Your task to perform on an android device: What's the weather going to be tomorrow? Image 0: 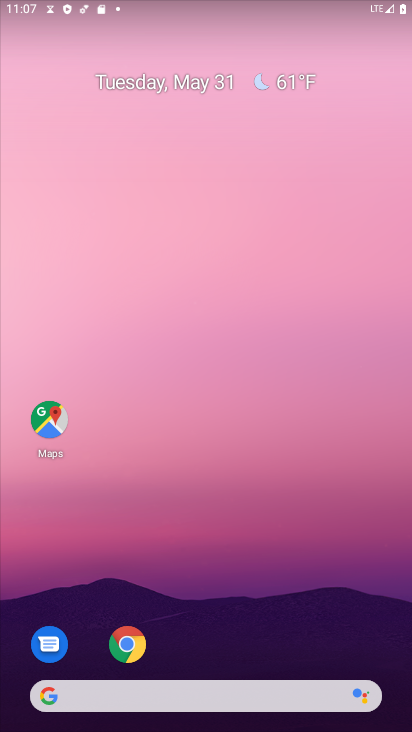
Step 0: click (295, 82)
Your task to perform on an android device: What's the weather going to be tomorrow? Image 1: 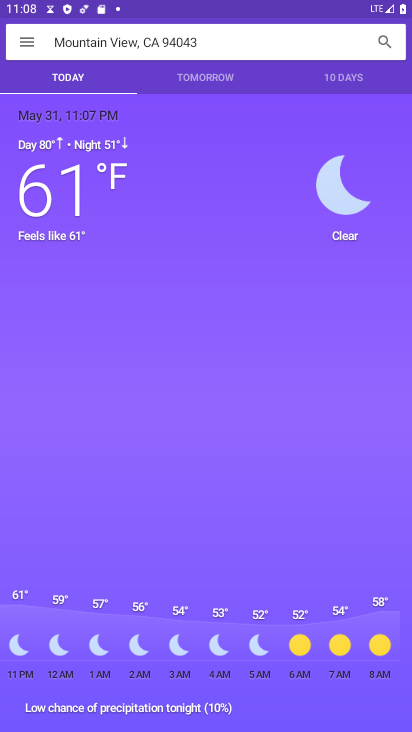
Step 1: click (207, 73)
Your task to perform on an android device: What's the weather going to be tomorrow? Image 2: 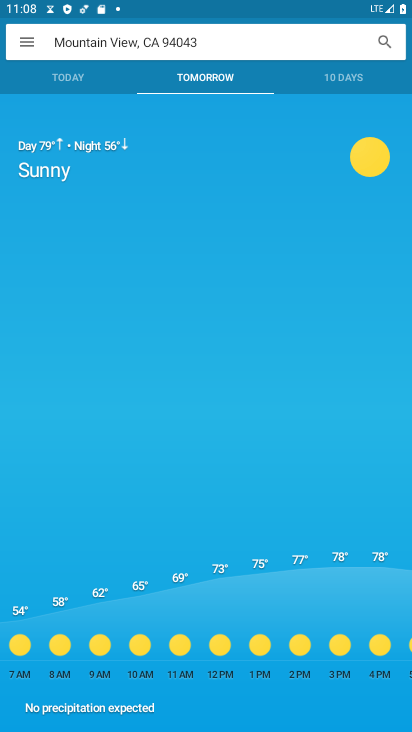
Step 2: task complete